Your task to perform on an android device: toggle data saver in the chrome app Image 0: 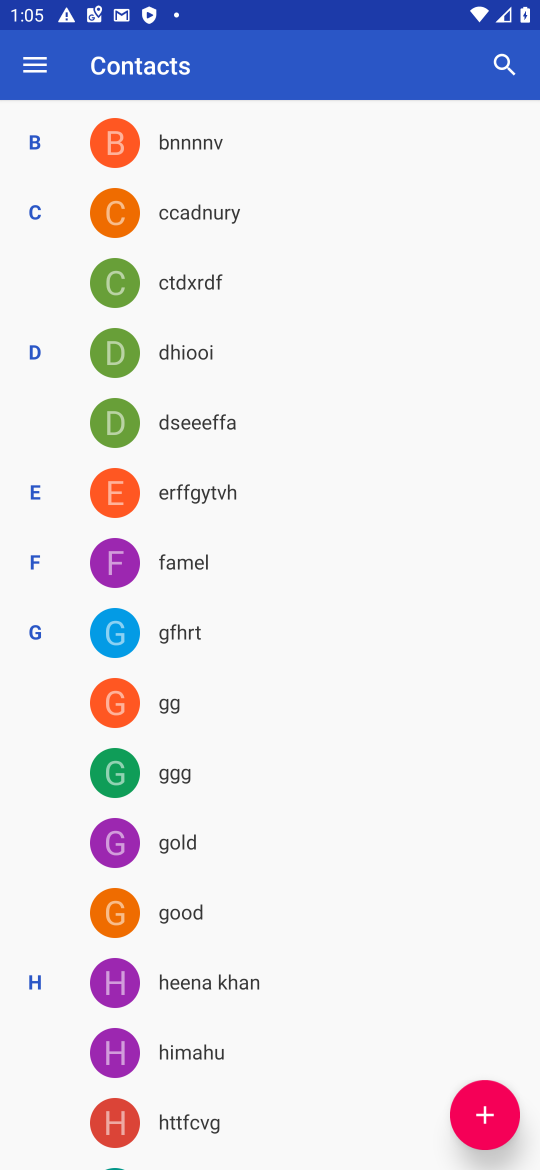
Step 0: press home button
Your task to perform on an android device: toggle data saver in the chrome app Image 1: 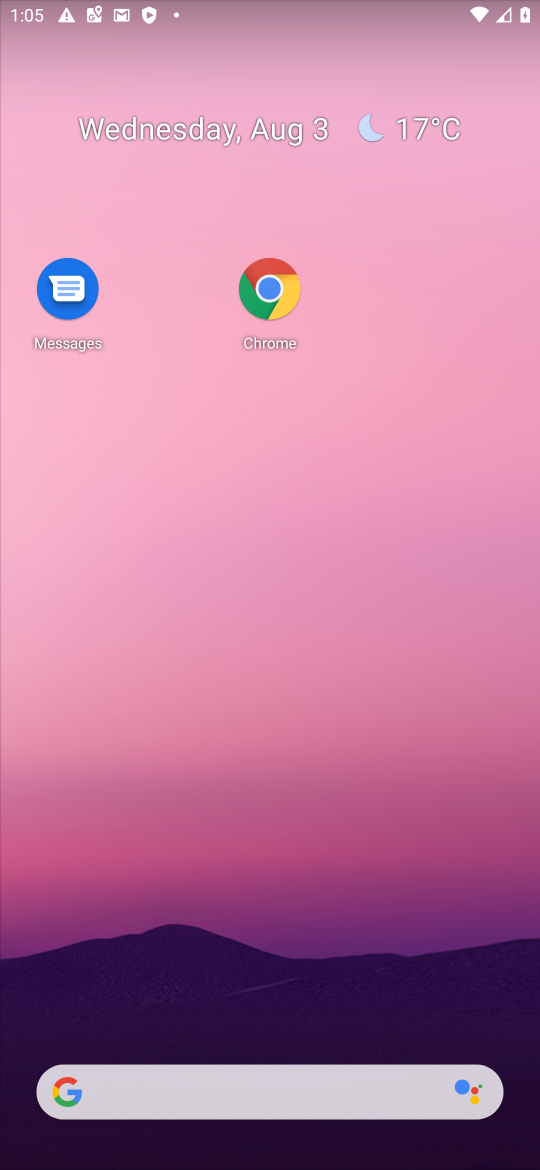
Step 1: click (249, 333)
Your task to perform on an android device: toggle data saver in the chrome app Image 2: 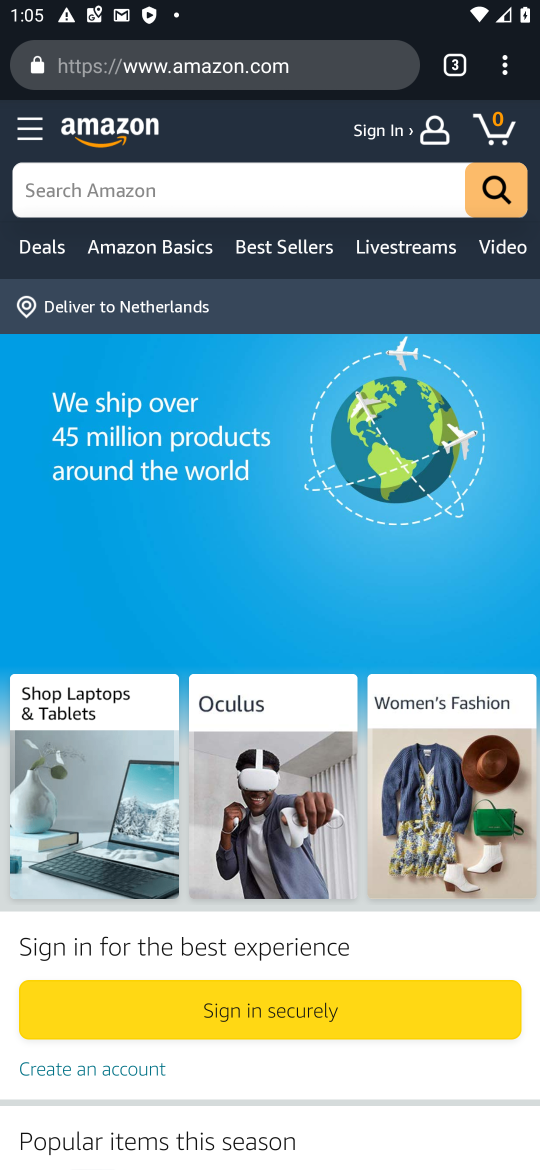
Step 2: click (512, 41)
Your task to perform on an android device: toggle data saver in the chrome app Image 3: 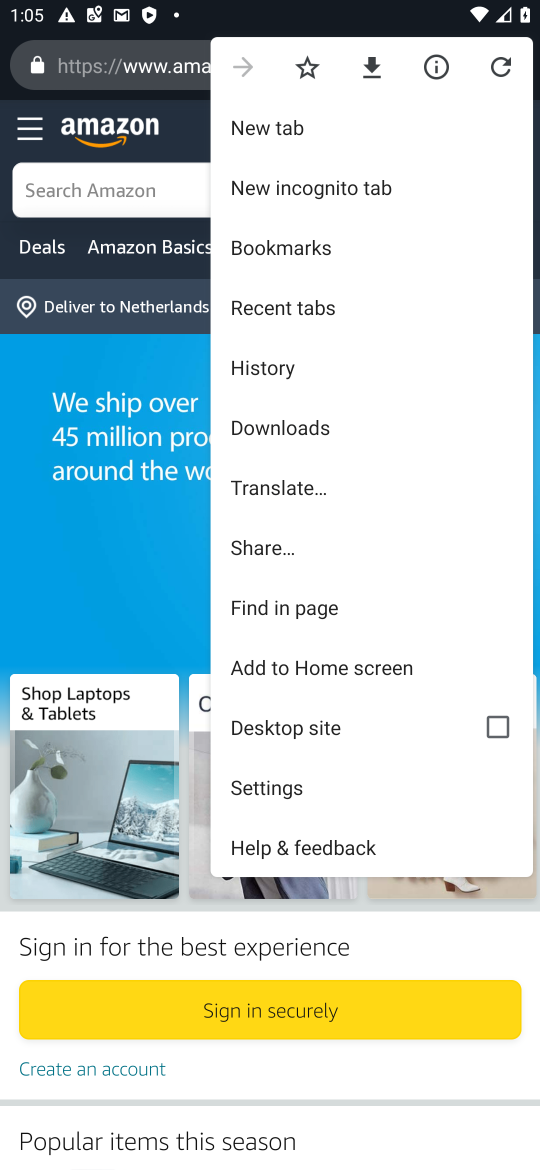
Step 3: click (360, 795)
Your task to perform on an android device: toggle data saver in the chrome app Image 4: 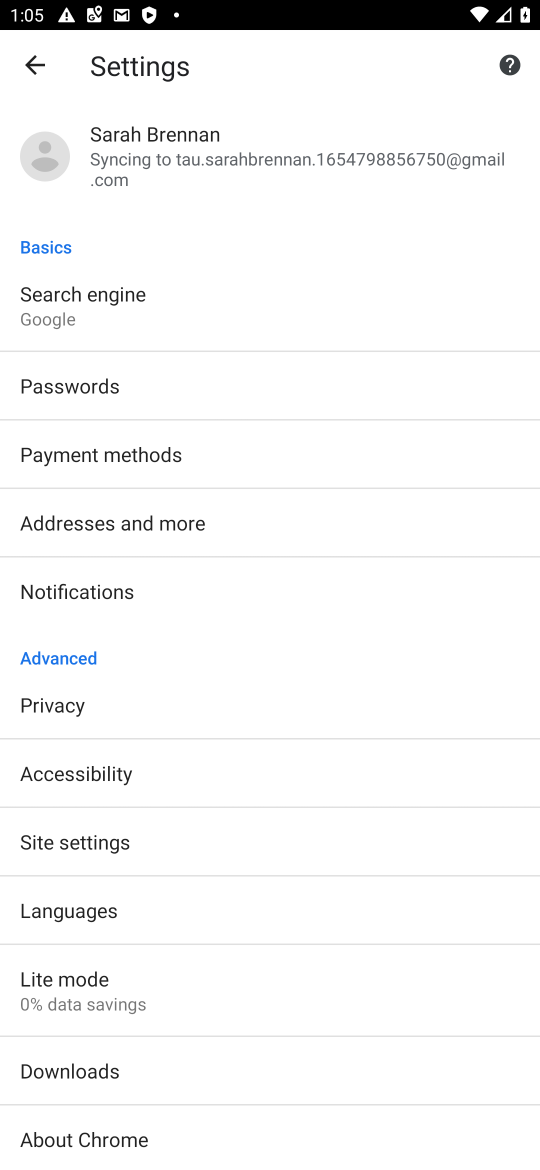
Step 4: click (345, 989)
Your task to perform on an android device: toggle data saver in the chrome app Image 5: 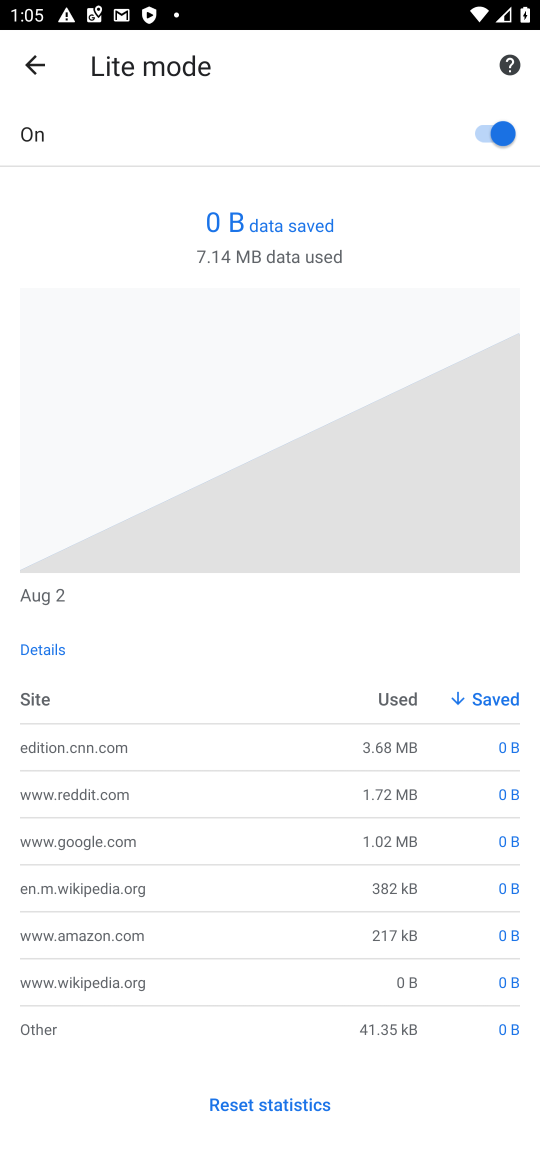
Step 5: click (462, 138)
Your task to perform on an android device: toggle data saver in the chrome app Image 6: 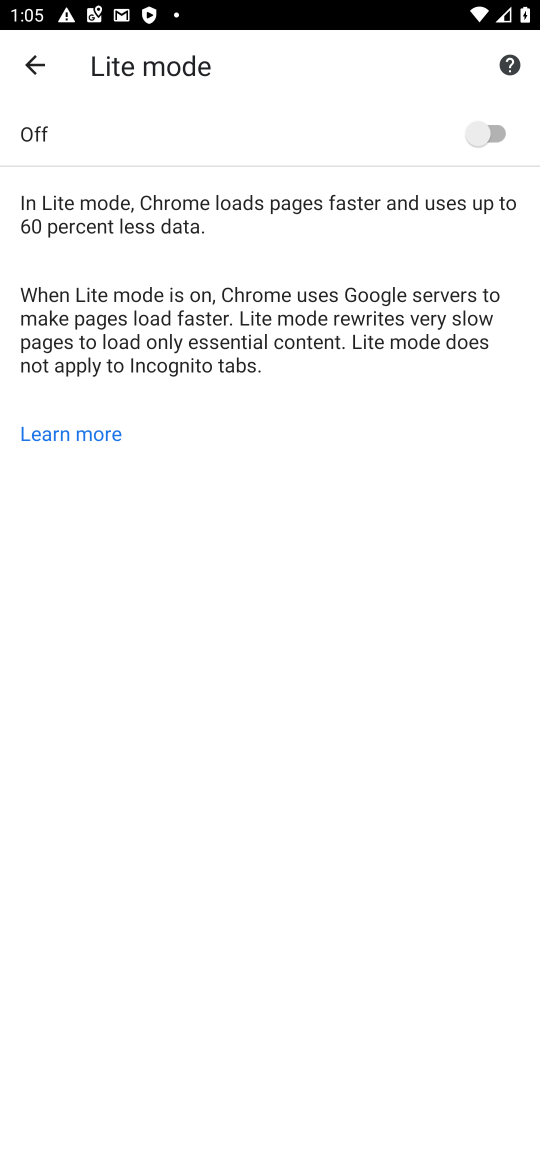
Step 6: task complete